Your task to perform on an android device: Do I have any events this weekend? Image 0: 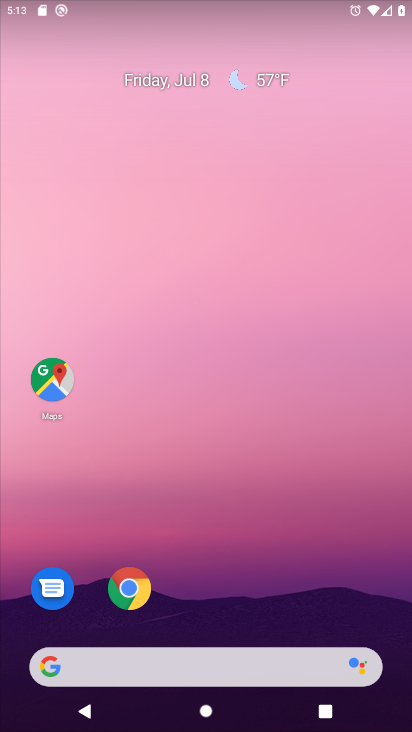
Step 0: drag from (243, 649) to (216, 88)
Your task to perform on an android device: Do I have any events this weekend? Image 1: 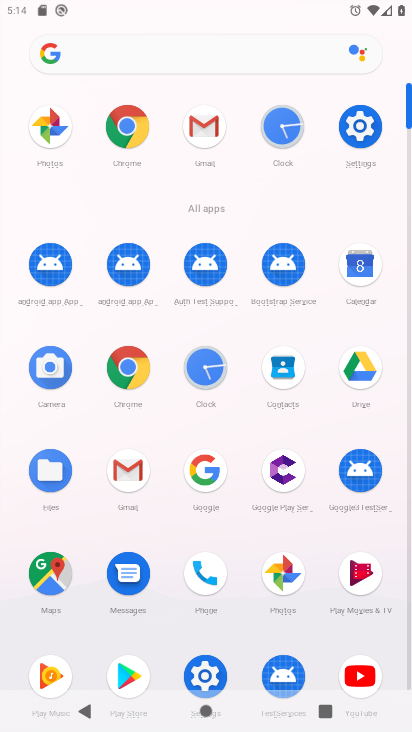
Step 1: click (372, 274)
Your task to perform on an android device: Do I have any events this weekend? Image 2: 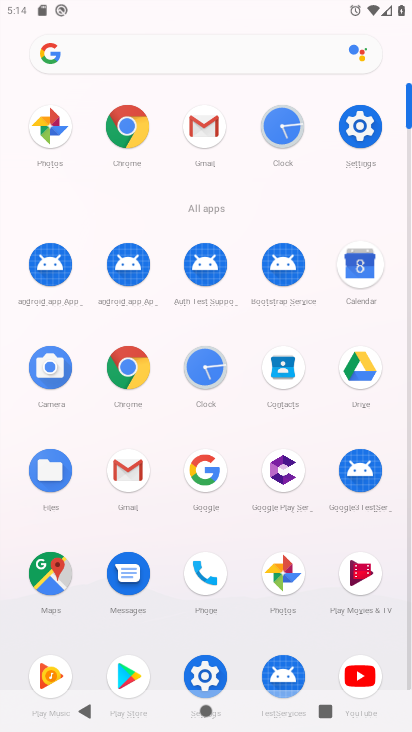
Step 2: click (369, 274)
Your task to perform on an android device: Do I have any events this weekend? Image 3: 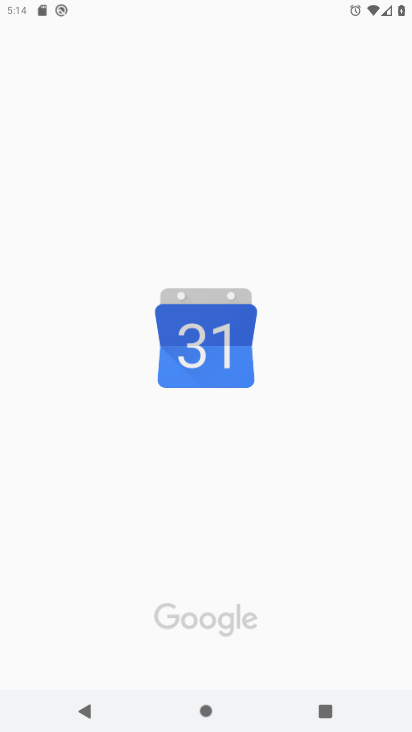
Step 3: click (368, 274)
Your task to perform on an android device: Do I have any events this weekend? Image 4: 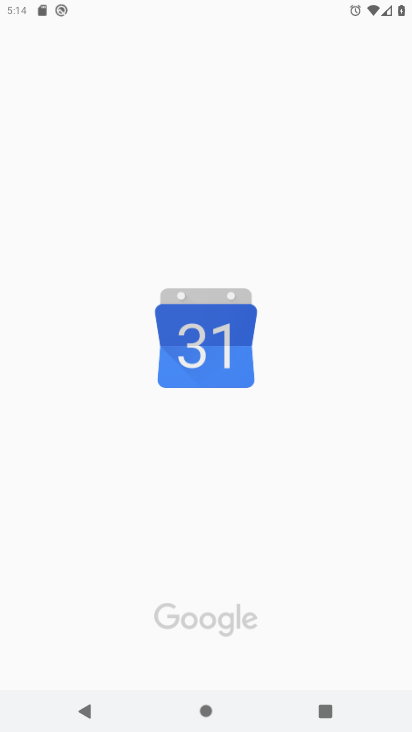
Step 4: click (368, 274)
Your task to perform on an android device: Do I have any events this weekend? Image 5: 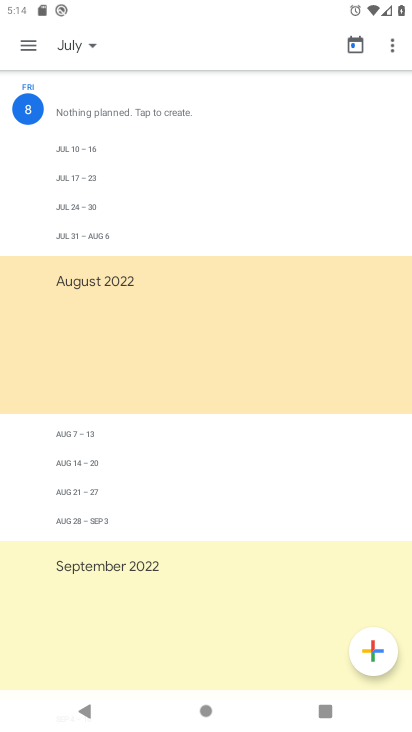
Step 5: click (87, 37)
Your task to perform on an android device: Do I have any events this weekend? Image 6: 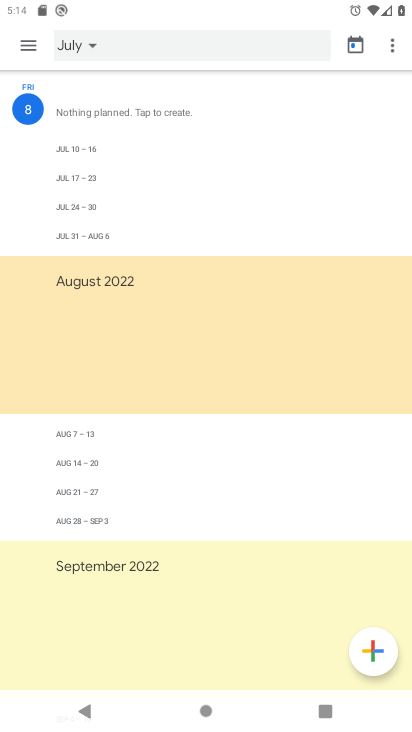
Step 6: click (91, 36)
Your task to perform on an android device: Do I have any events this weekend? Image 7: 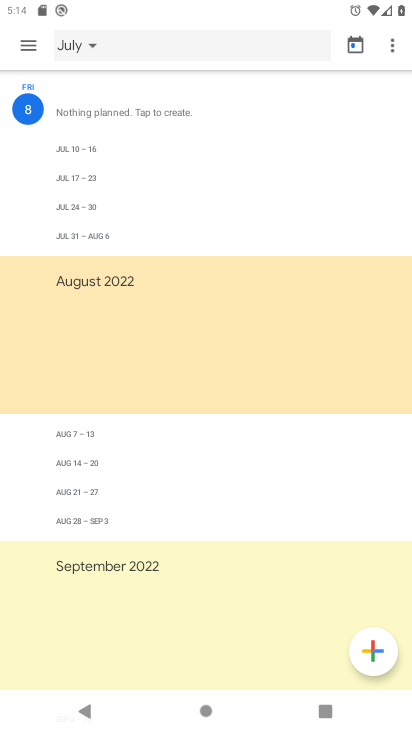
Step 7: click (92, 37)
Your task to perform on an android device: Do I have any events this weekend? Image 8: 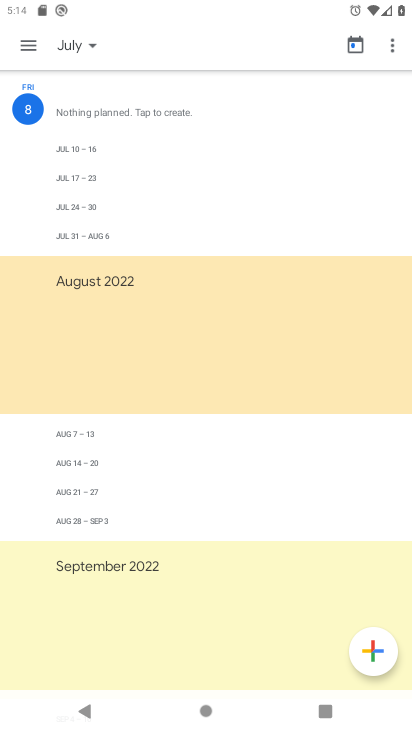
Step 8: click (91, 44)
Your task to perform on an android device: Do I have any events this weekend? Image 9: 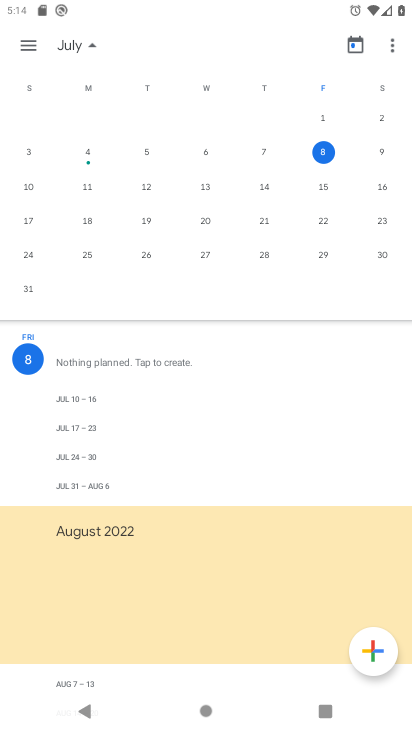
Step 9: drag from (310, 177) to (3, 299)
Your task to perform on an android device: Do I have any events this weekend? Image 10: 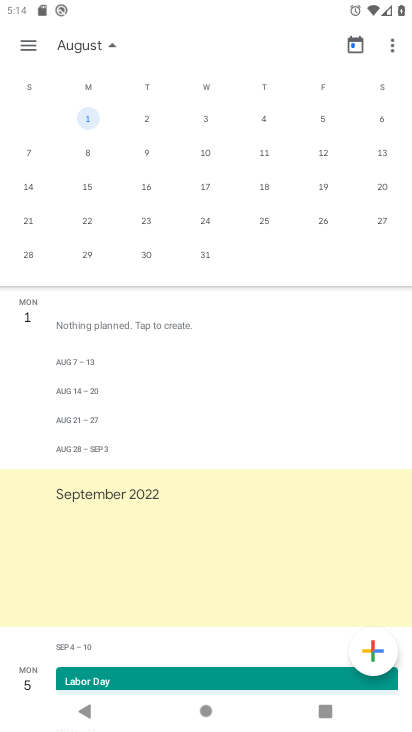
Step 10: drag from (124, 198) to (403, 272)
Your task to perform on an android device: Do I have any events this weekend? Image 11: 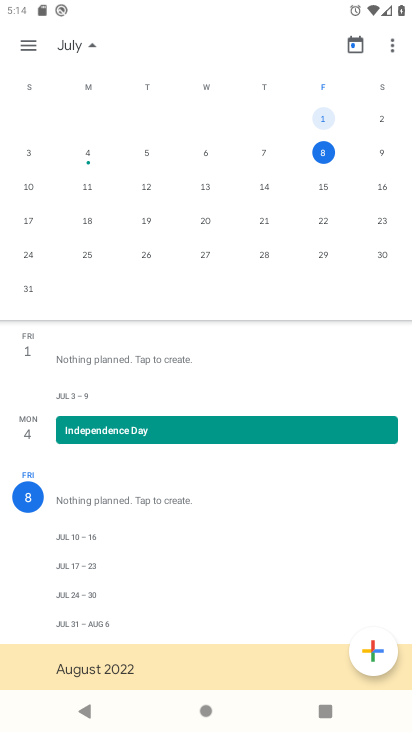
Step 11: click (377, 146)
Your task to perform on an android device: Do I have any events this weekend? Image 12: 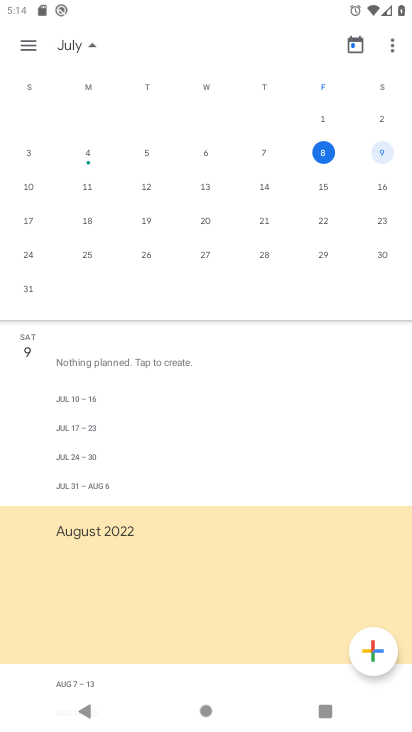
Step 12: click (386, 139)
Your task to perform on an android device: Do I have any events this weekend? Image 13: 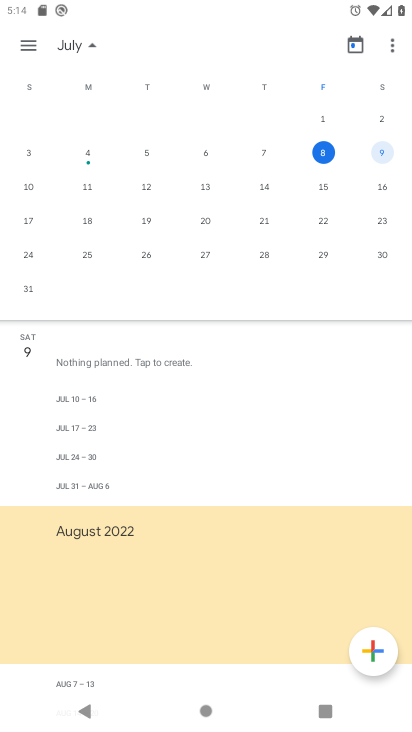
Step 13: task complete